Your task to perform on an android device: toggle priority inbox in the gmail app Image 0: 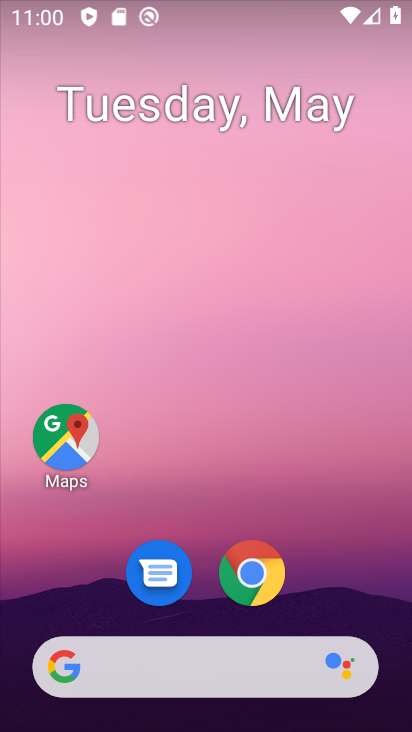
Step 0: drag from (237, 646) to (176, 336)
Your task to perform on an android device: toggle priority inbox in the gmail app Image 1: 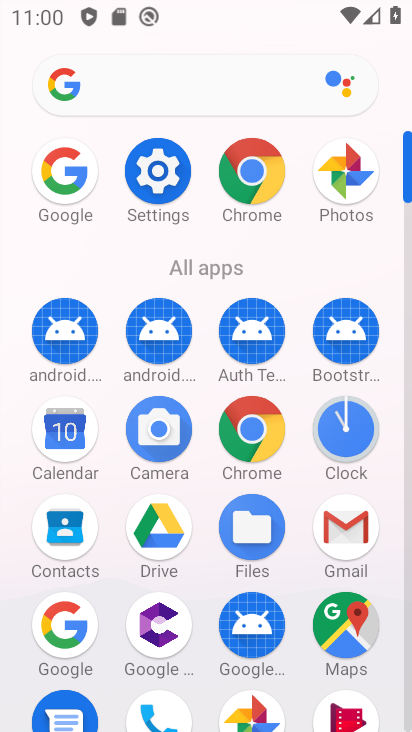
Step 1: click (356, 532)
Your task to perform on an android device: toggle priority inbox in the gmail app Image 2: 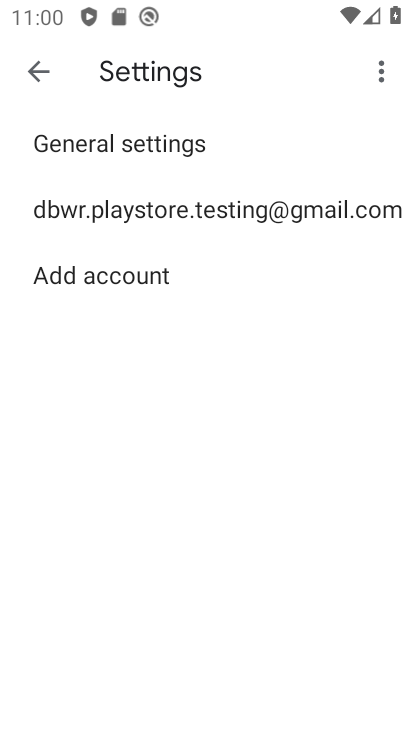
Step 2: click (85, 211)
Your task to perform on an android device: toggle priority inbox in the gmail app Image 3: 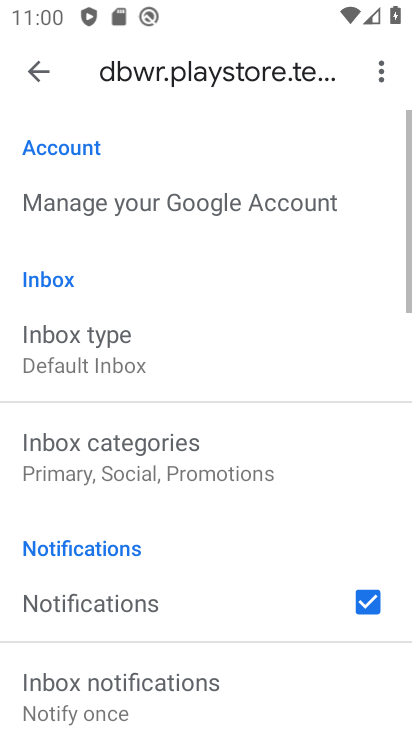
Step 3: click (99, 352)
Your task to perform on an android device: toggle priority inbox in the gmail app Image 4: 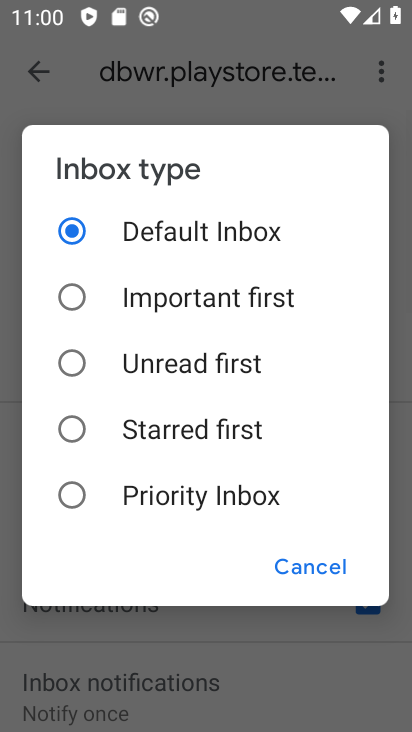
Step 4: click (103, 488)
Your task to perform on an android device: toggle priority inbox in the gmail app Image 5: 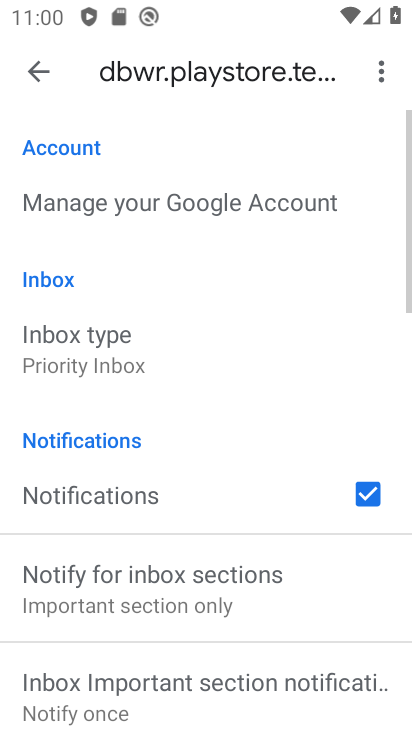
Step 5: task complete